Your task to perform on an android device: turn off picture-in-picture Image 0: 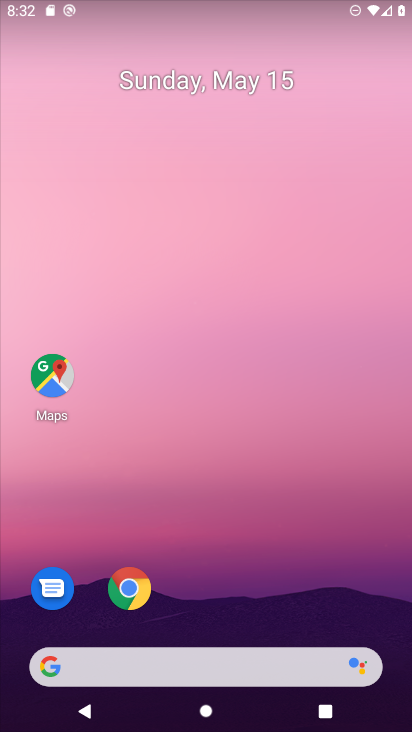
Step 0: press home button
Your task to perform on an android device: turn off picture-in-picture Image 1: 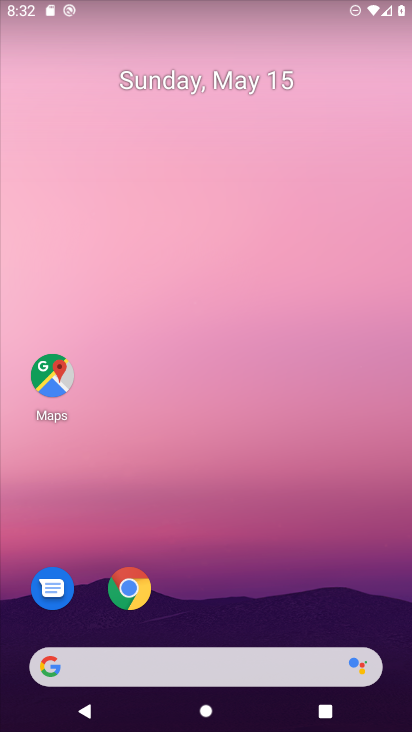
Step 1: click (138, 592)
Your task to perform on an android device: turn off picture-in-picture Image 2: 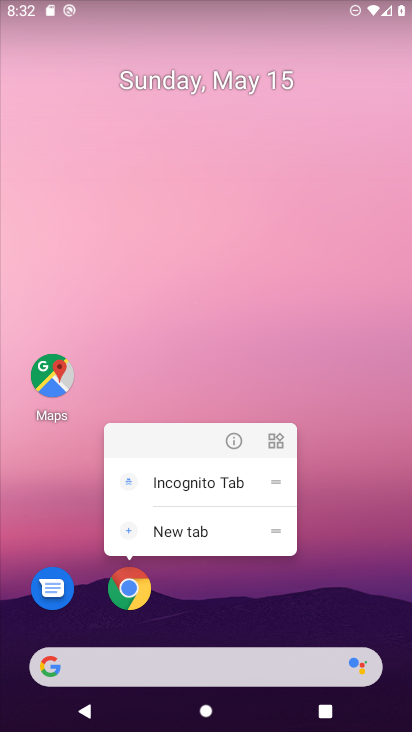
Step 2: click (235, 441)
Your task to perform on an android device: turn off picture-in-picture Image 3: 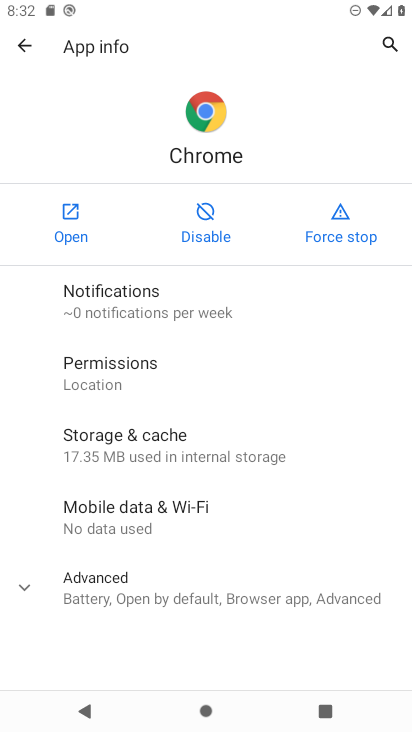
Step 3: click (38, 584)
Your task to perform on an android device: turn off picture-in-picture Image 4: 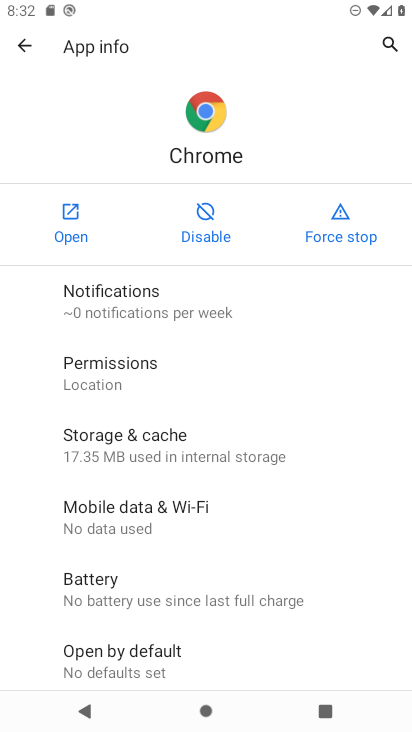
Step 4: drag from (221, 652) to (228, 192)
Your task to perform on an android device: turn off picture-in-picture Image 5: 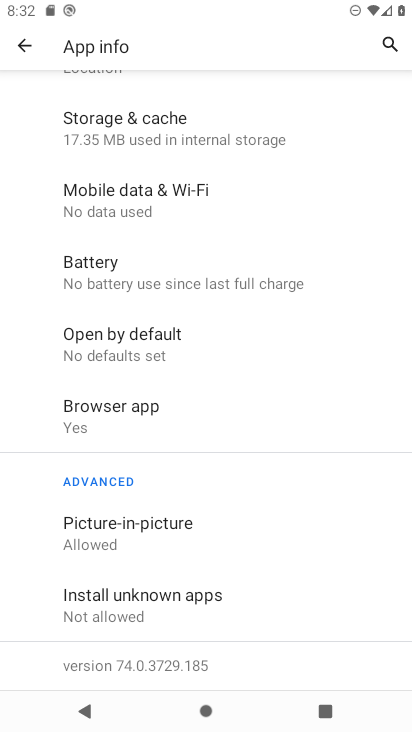
Step 5: click (139, 532)
Your task to perform on an android device: turn off picture-in-picture Image 6: 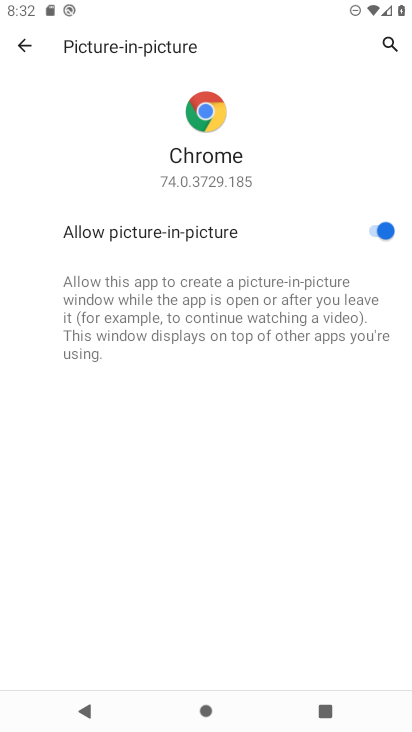
Step 6: click (379, 227)
Your task to perform on an android device: turn off picture-in-picture Image 7: 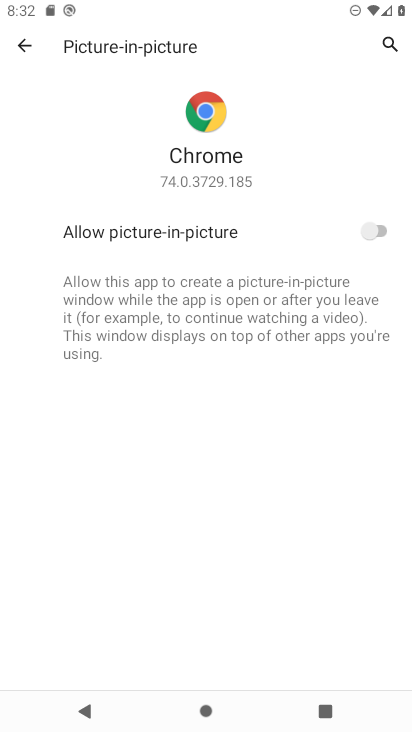
Step 7: task complete